Your task to perform on an android device: Open notification settings Image 0: 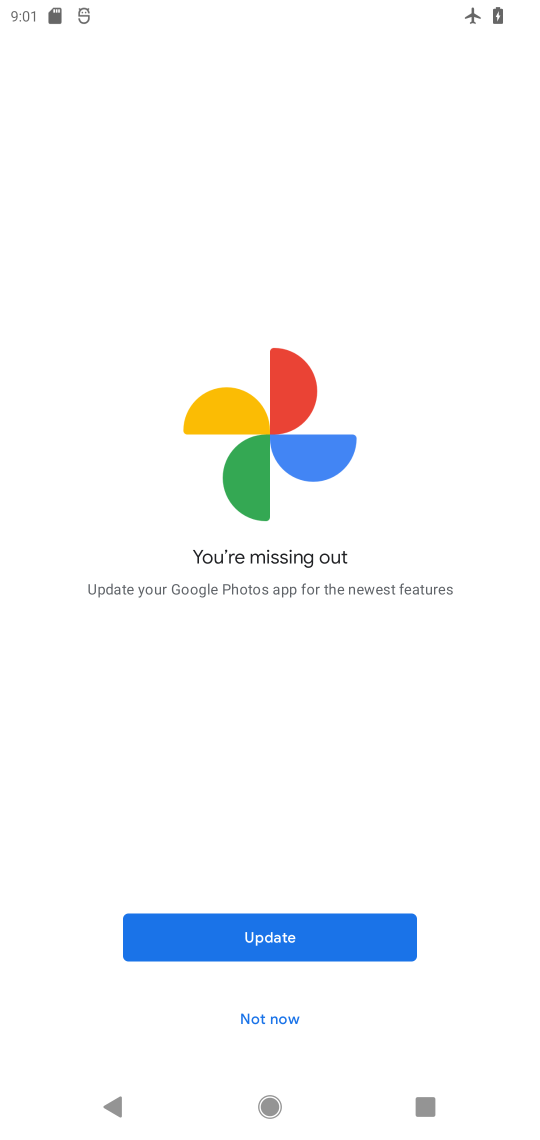
Step 0: press home button
Your task to perform on an android device: Open notification settings Image 1: 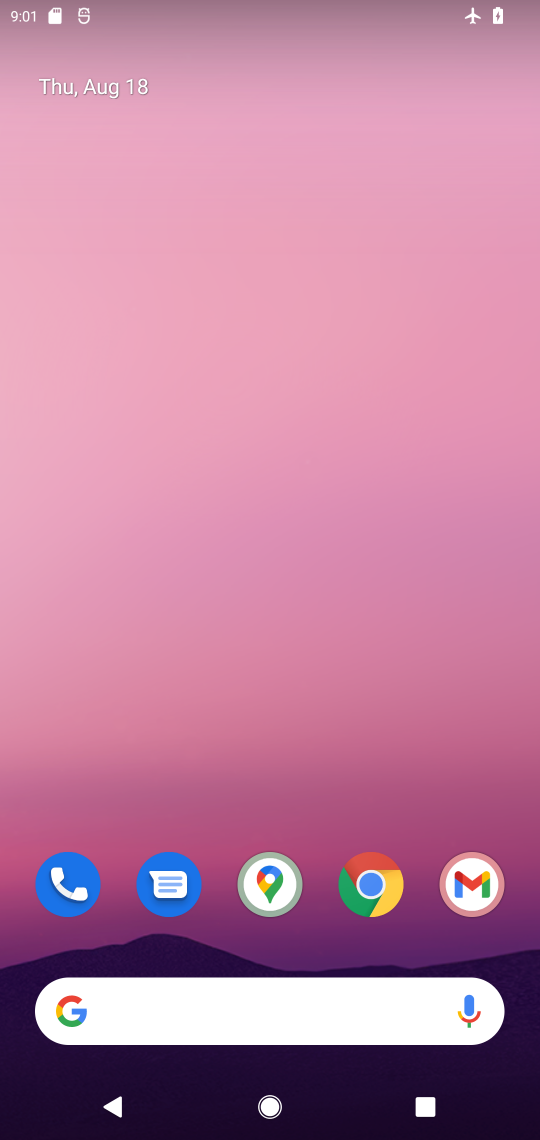
Step 1: drag from (210, 925) to (415, 52)
Your task to perform on an android device: Open notification settings Image 2: 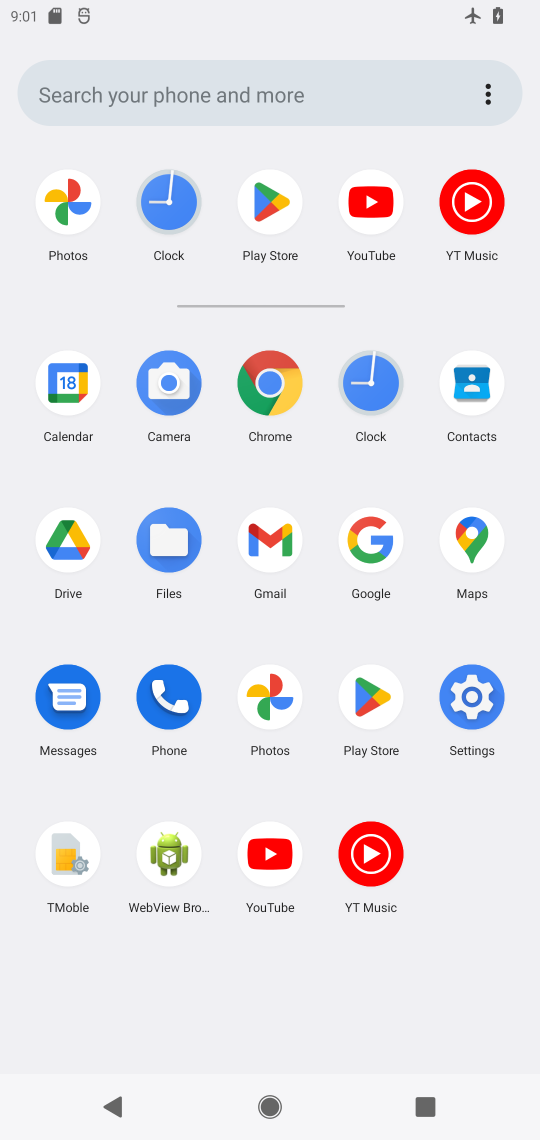
Step 2: click (481, 710)
Your task to perform on an android device: Open notification settings Image 3: 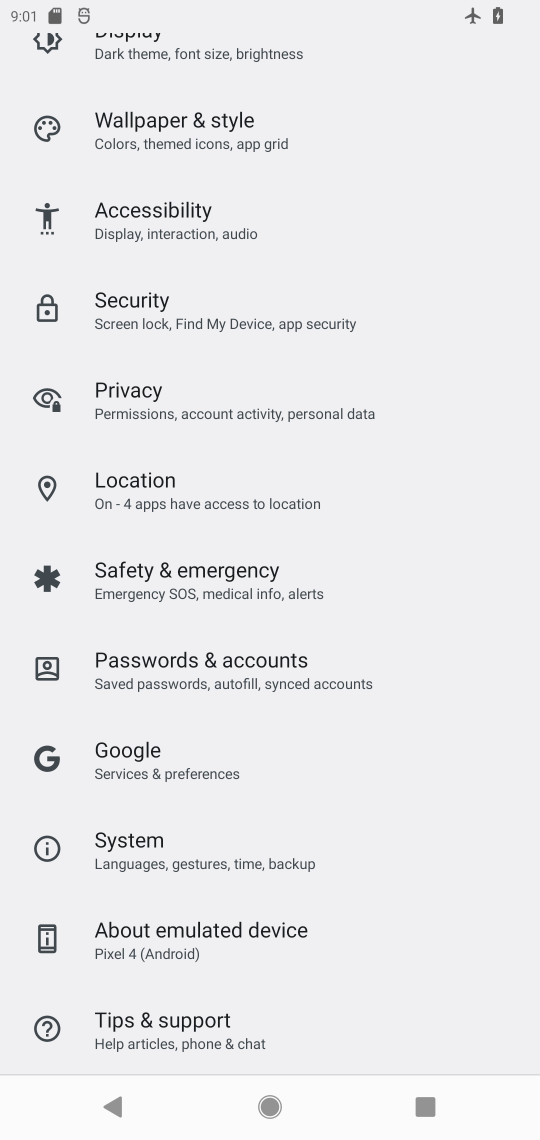
Step 3: drag from (256, 196) to (312, 988)
Your task to perform on an android device: Open notification settings Image 4: 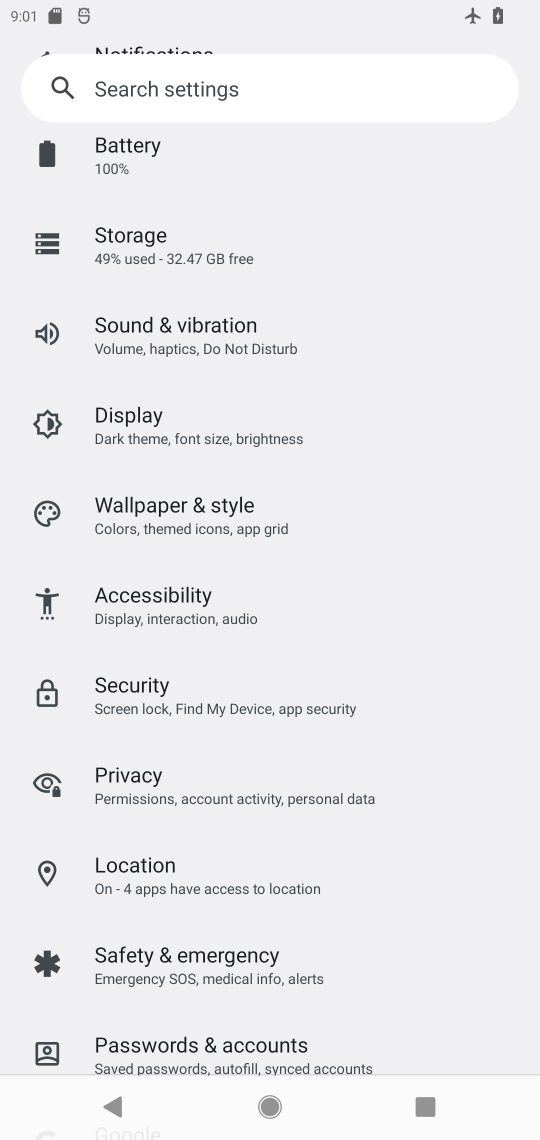
Step 4: drag from (212, 184) to (256, 888)
Your task to perform on an android device: Open notification settings Image 5: 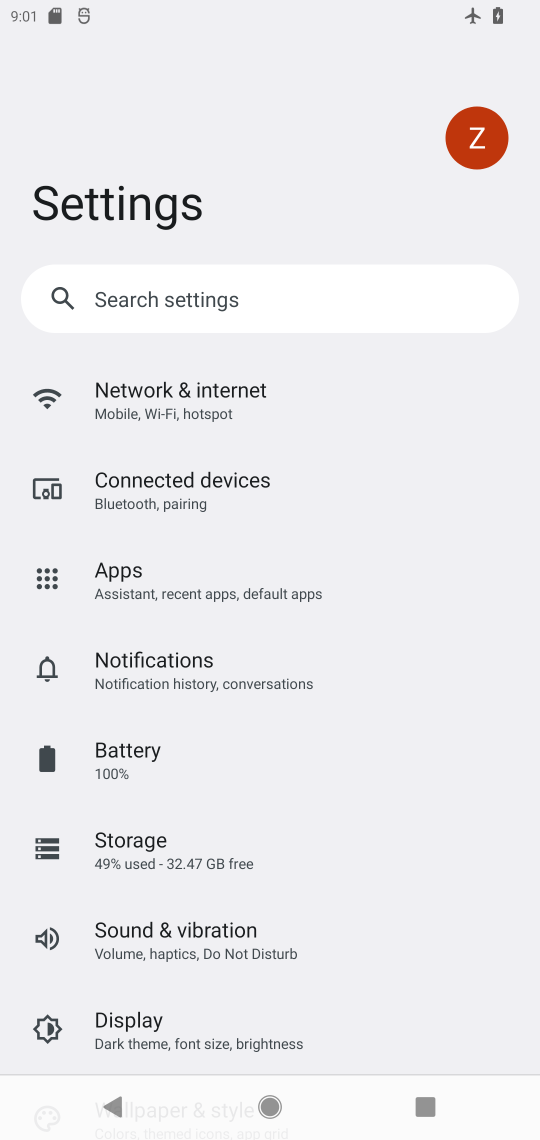
Step 5: click (157, 664)
Your task to perform on an android device: Open notification settings Image 6: 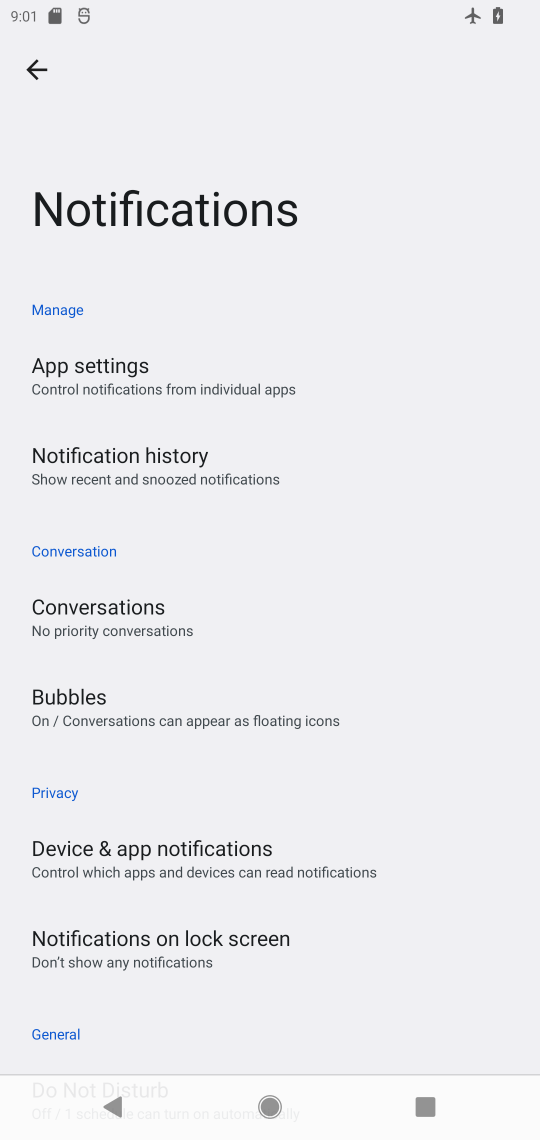
Step 6: task complete